Your task to perform on an android device: turn vacation reply on in the gmail app Image 0: 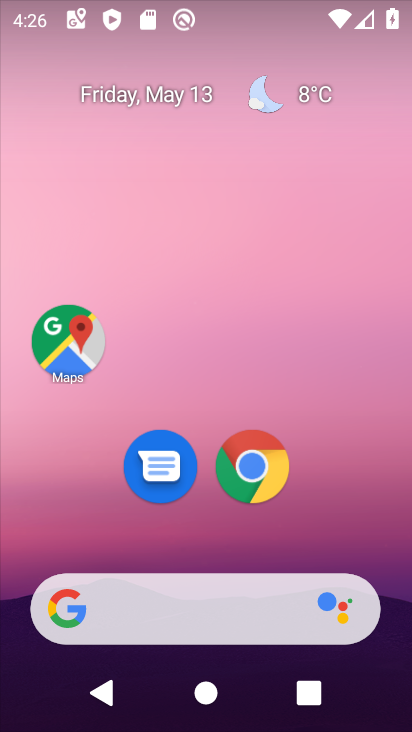
Step 0: drag from (394, 620) to (326, 126)
Your task to perform on an android device: turn vacation reply on in the gmail app Image 1: 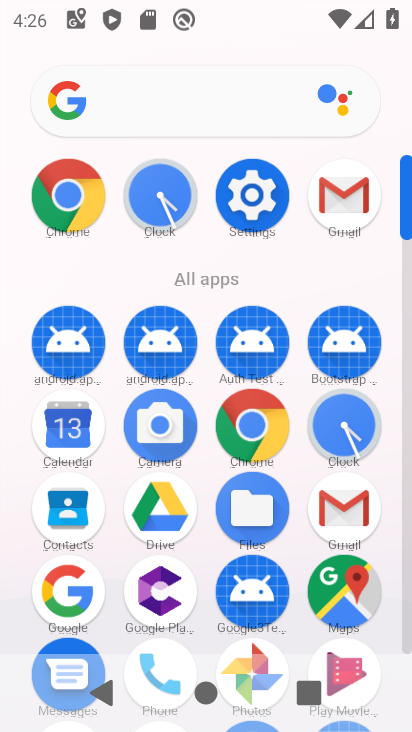
Step 1: click (343, 510)
Your task to perform on an android device: turn vacation reply on in the gmail app Image 2: 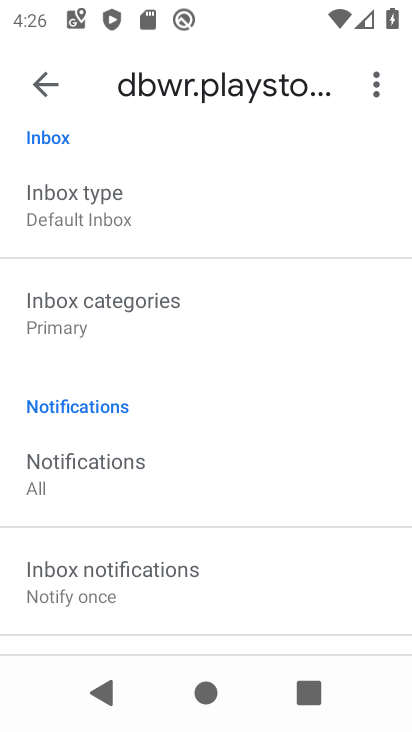
Step 2: drag from (239, 592) to (233, 163)
Your task to perform on an android device: turn vacation reply on in the gmail app Image 3: 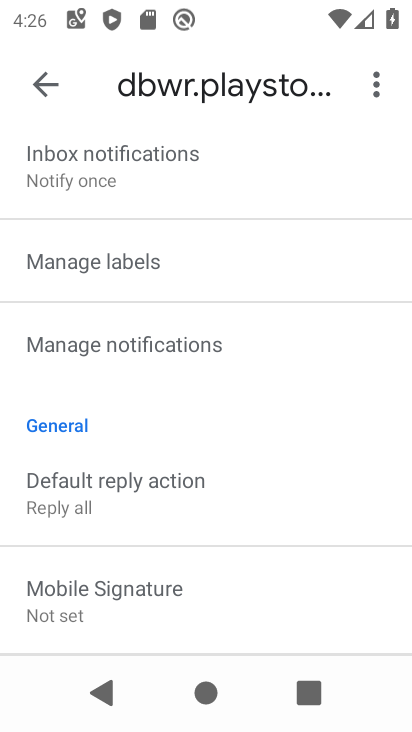
Step 3: drag from (229, 557) to (234, 218)
Your task to perform on an android device: turn vacation reply on in the gmail app Image 4: 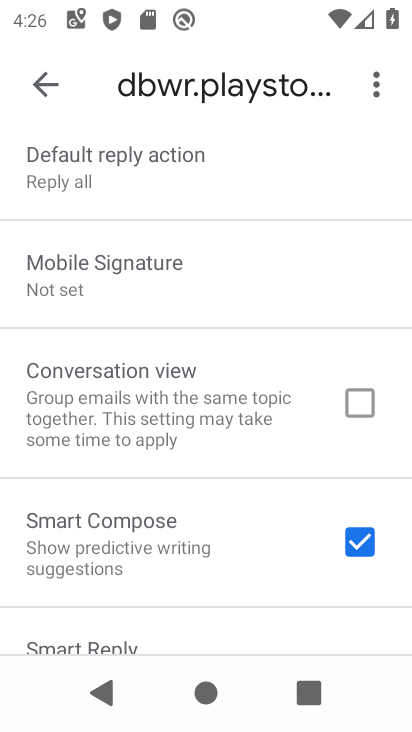
Step 4: drag from (233, 577) to (233, 150)
Your task to perform on an android device: turn vacation reply on in the gmail app Image 5: 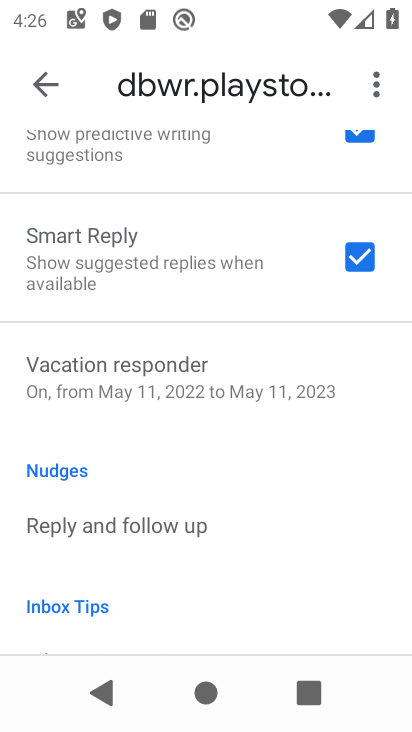
Step 5: click (194, 381)
Your task to perform on an android device: turn vacation reply on in the gmail app Image 6: 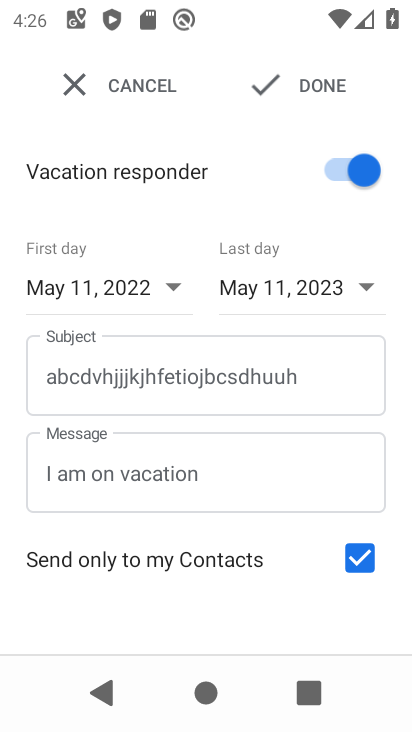
Step 6: task complete